Your task to perform on an android device: check storage Image 0: 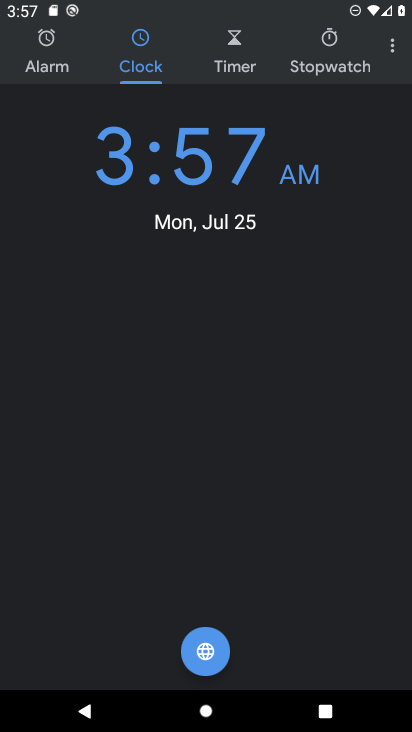
Step 0: click (240, 138)
Your task to perform on an android device: check storage Image 1: 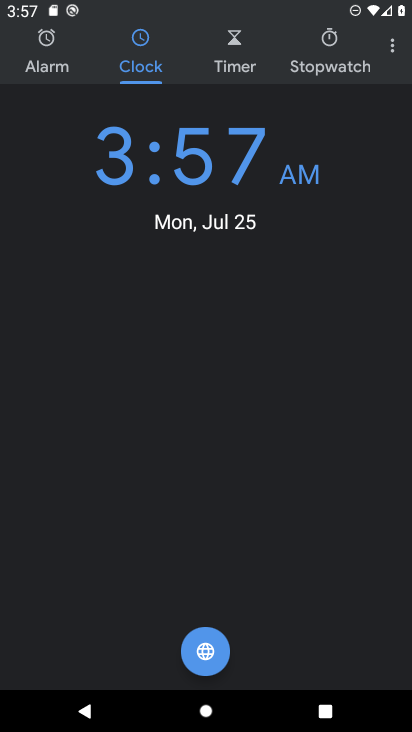
Step 1: click (396, 50)
Your task to perform on an android device: check storage Image 2: 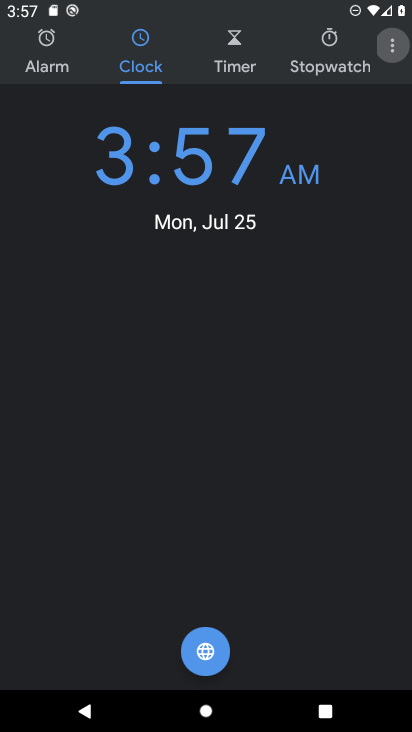
Step 2: click (396, 50)
Your task to perform on an android device: check storage Image 3: 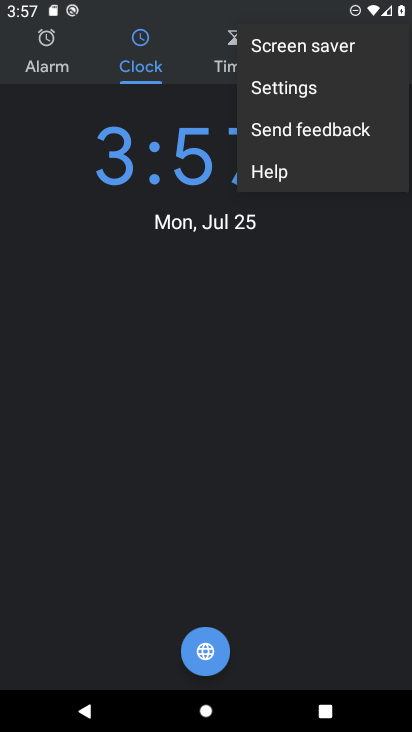
Step 3: press back button
Your task to perform on an android device: check storage Image 4: 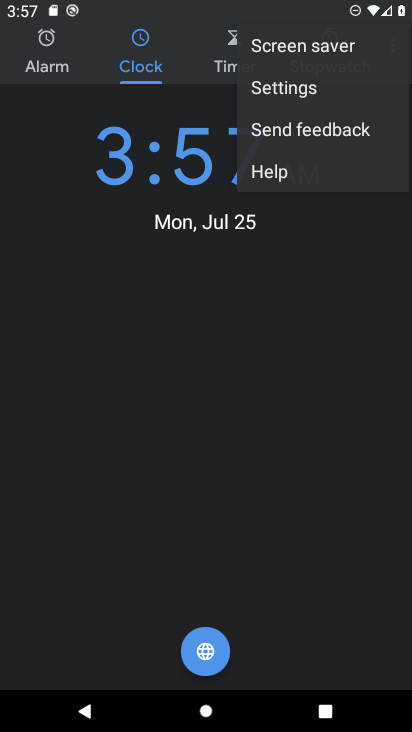
Step 4: press back button
Your task to perform on an android device: check storage Image 5: 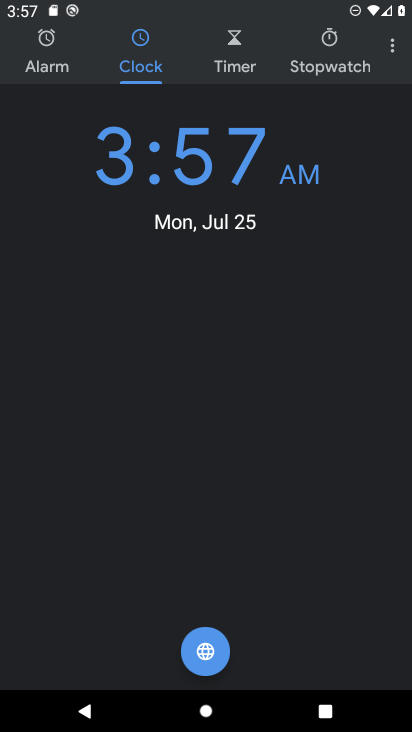
Step 5: press back button
Your task to perform on an android device: check storage Image 6: 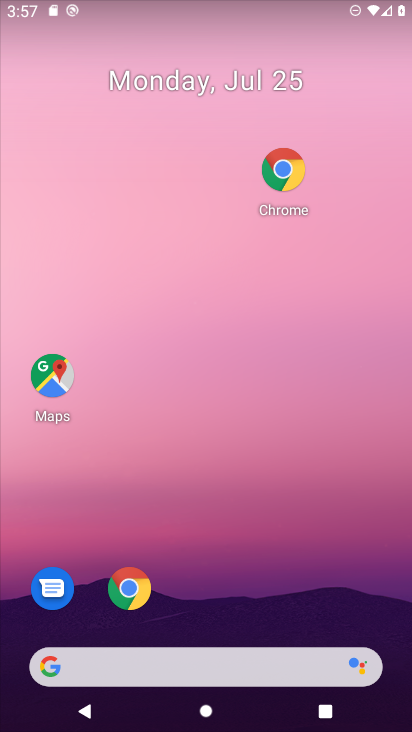
Step 6: drag from (228, 493) to (200, 297)
Your task to perform on an android device: check storage Image 7: 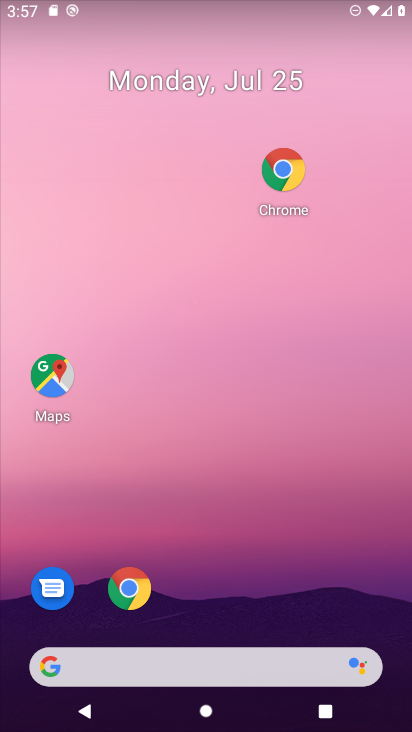
Step 7: drag from (222, 507) to (207, 84)
Your task to perform on an android device: check storage Image 8: 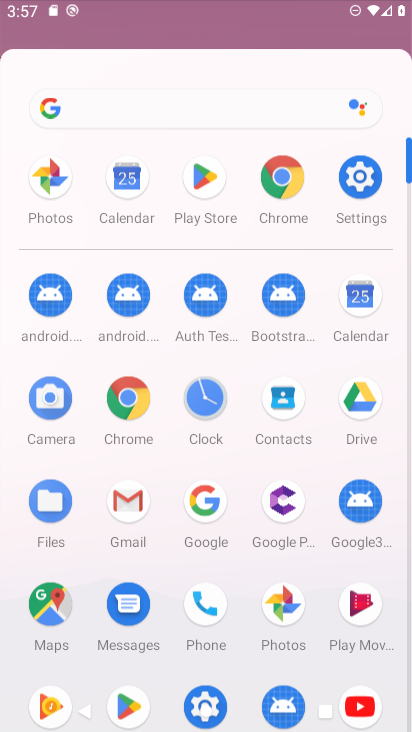
Step 8: drag from (231, 613) to (214, 87)
Your task to perform on an android device: check storage Image 9: 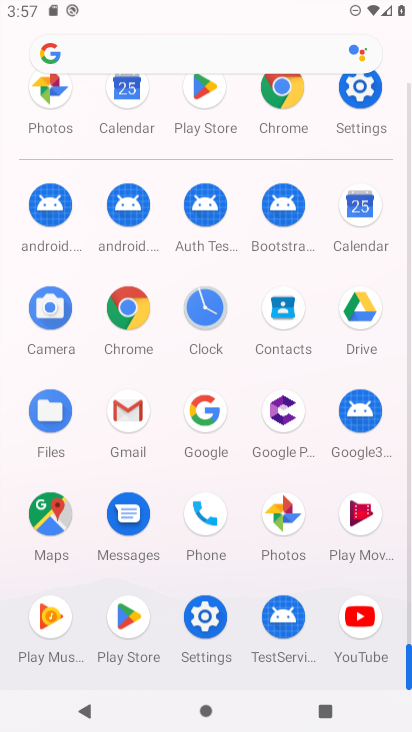
Step 9: drag from (252, 460) to (224, 130)
Your task to perform on an android device: check storage Image 10: 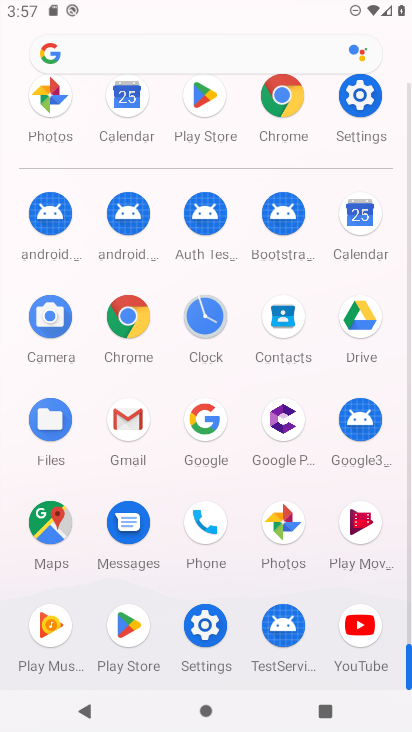
Step 10: click (363, 113)
Your task to perform on an android device: check storage Image 11: 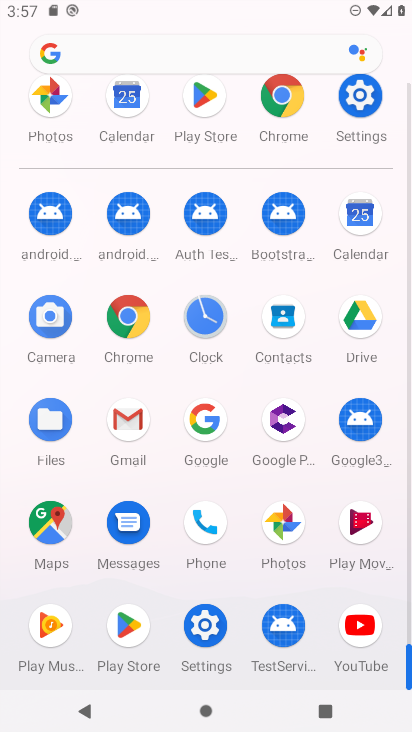
Step 11: click (363, 113)
Your task to perform on an android device: check storage Image 12: 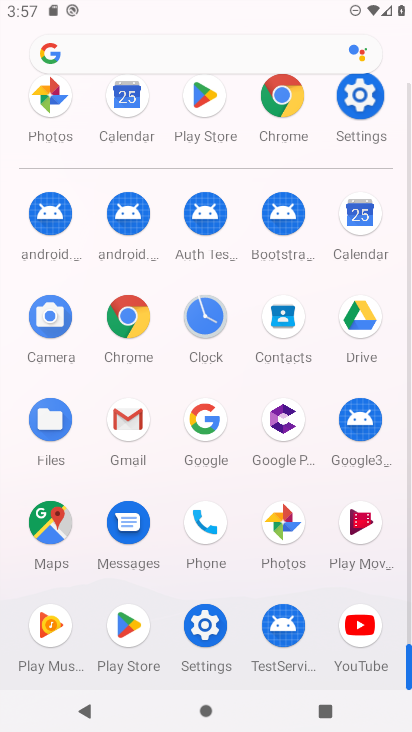
Step 12: click (367, 116)
Your task to perform on an android device: check storage Image 13: 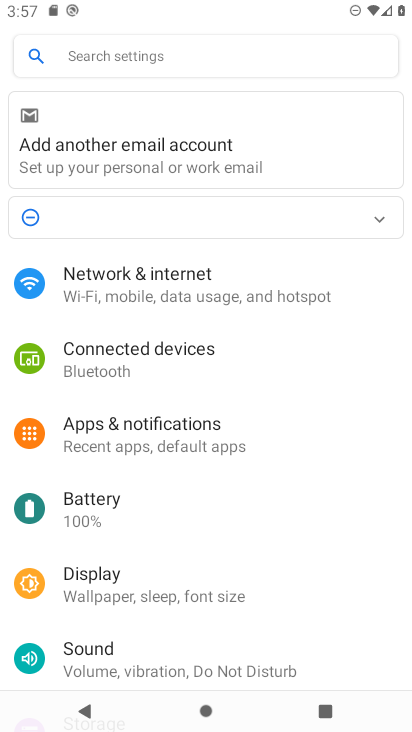
Step 13: drag from (105, 594) to (159, 47)
Your task to perform on an android device: check storage Image 14: 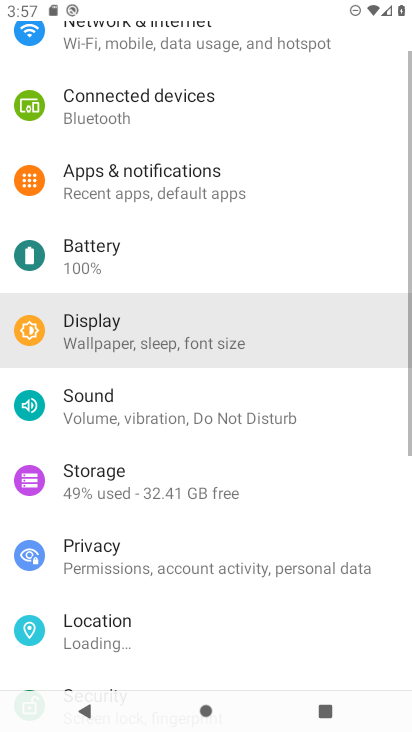
Step 14: drag from (236, 430) to (205, 220)
Your task to perform on an android device: check storage Image 15: 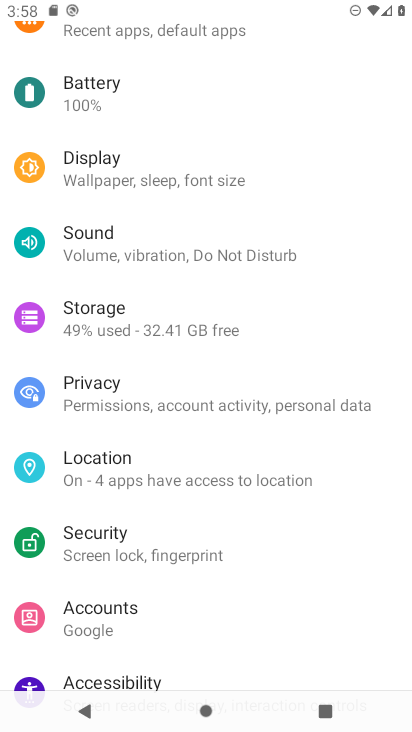
Step 15: click (107, 317)
Your task to perform on an android device: check storage Image 16: 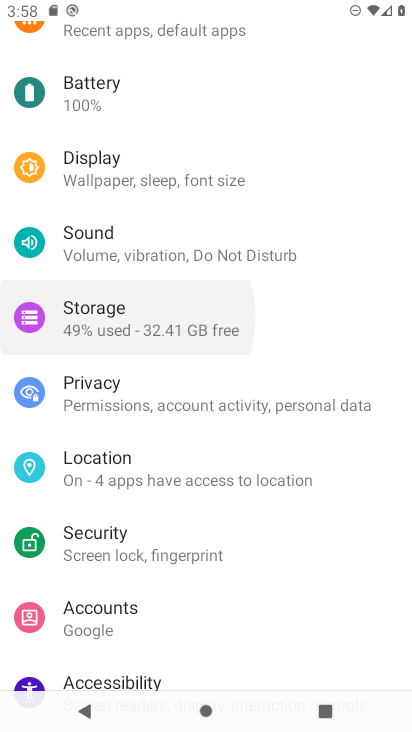
Step 16: click (107, 318)
Your task to perform on an android device: check storage Image 17: 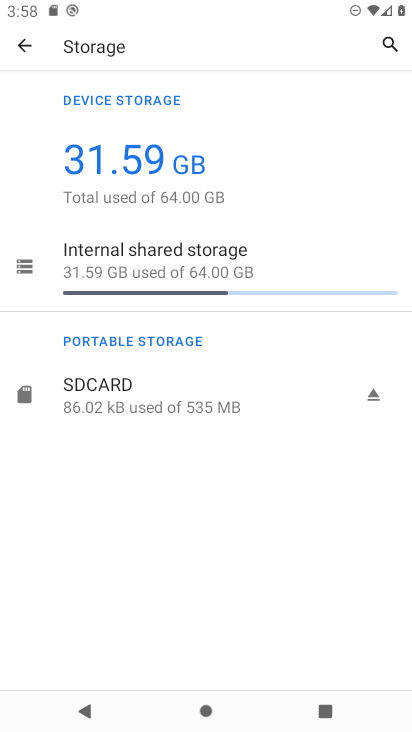
Step 17: task complete